Your task to perform on an android device: set default search engine in the chrome app Image 0: 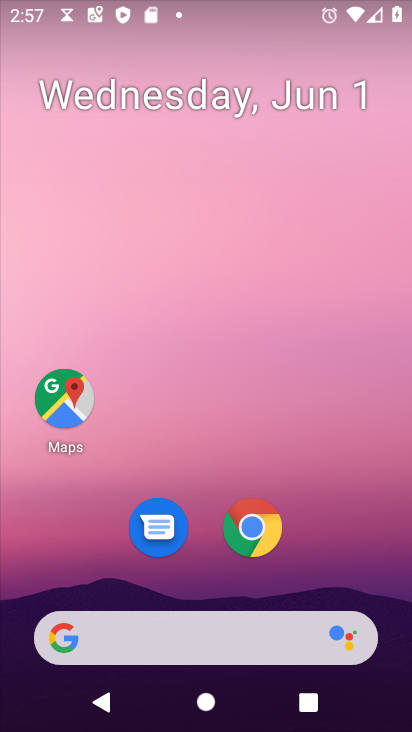
Step 0: click (252, 527)
Your task to perform on an android device: set default search engine in the chrome app Image 1: 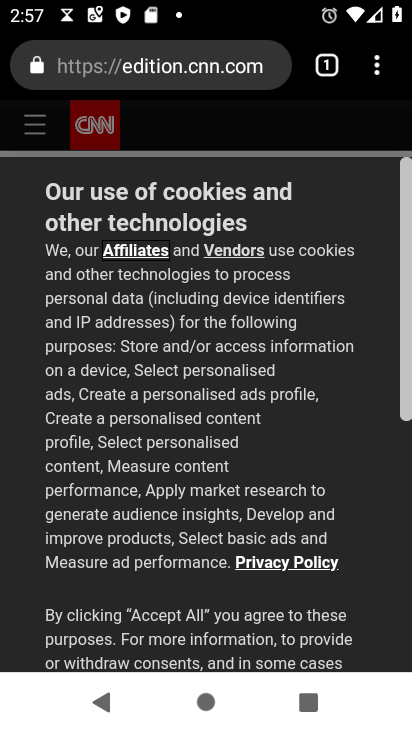
Step 1: click (379, 69)
Your task to perform on an android device: set default search engine in the chrome app Image 2: 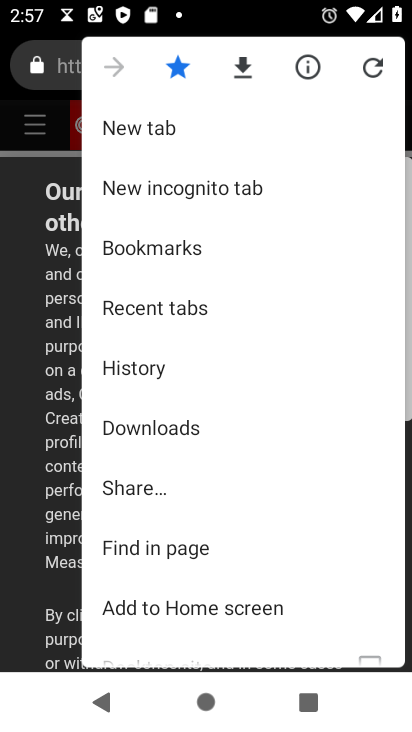
Step 2: drag from (172, 453) to (201, 383)
Your task to perform on an android device: set default search engine in the chrome app Image 3: 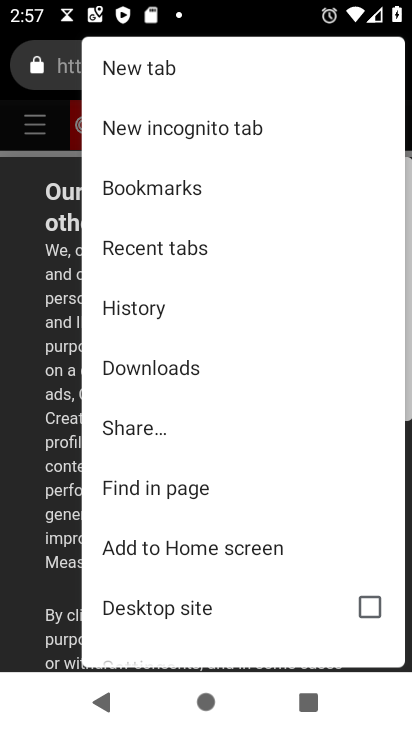
Step 3: drag from (166, 454) to (206, 387)
Your task to perform on an android device: set default search engine in the chrome app Image 4: 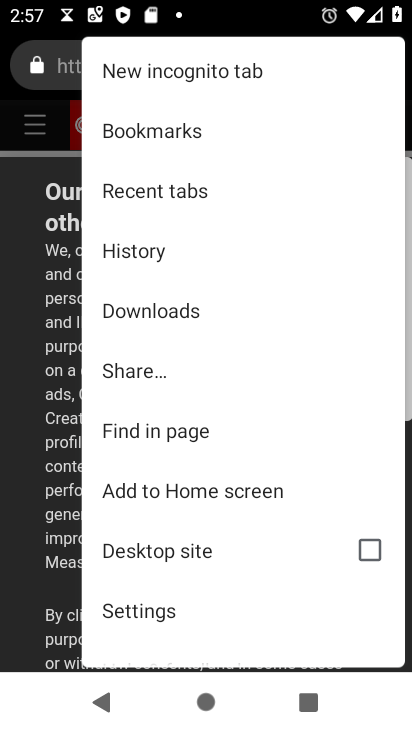
Step 4: drag from (160, 516) to (228, 426)
Your task to perform on an android device: set default search engine in the chrome app Image 5: 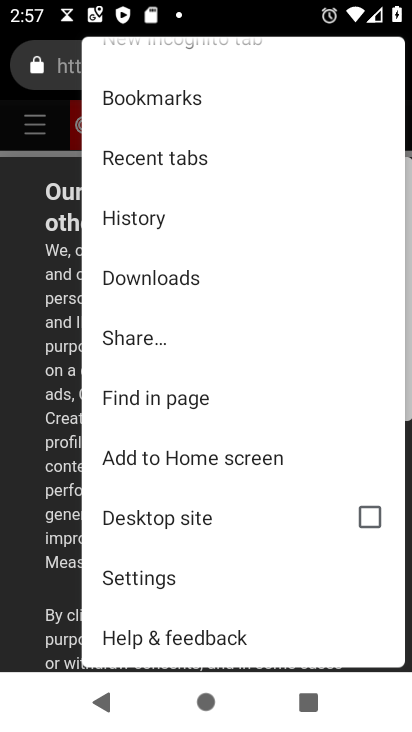
Step 5: click (158, 571)
Your task to perform on an android device: set default search engine in the chrome app Image 6: 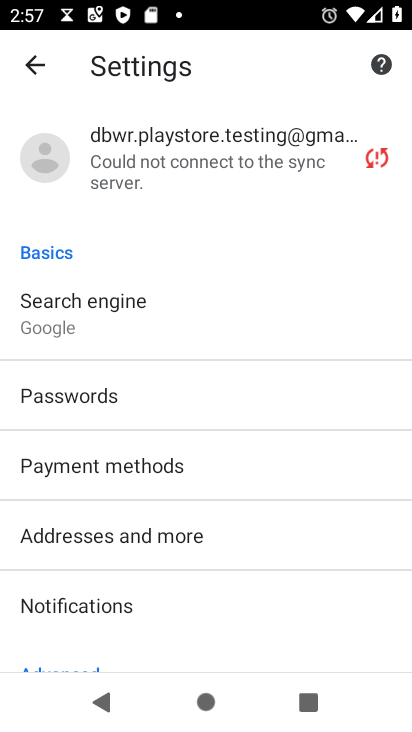
Step 6: click (122, 312)
Your task to perform on an android device: set default search engine in the chrome app Image 7: 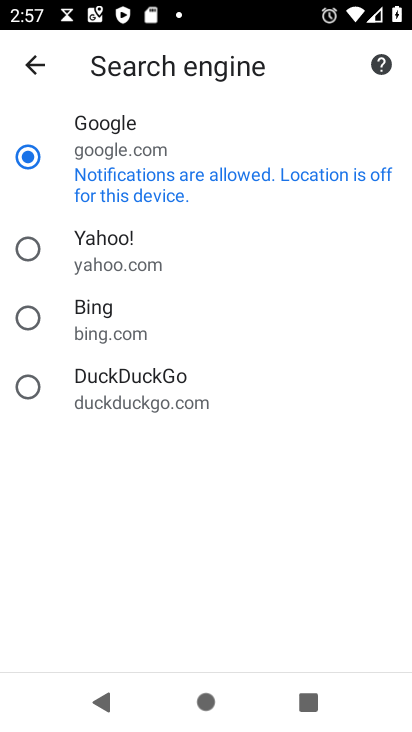
Step 7: click (32, 151)
Your task to perform on an android device: set default search engine in the chrome app Image 8: 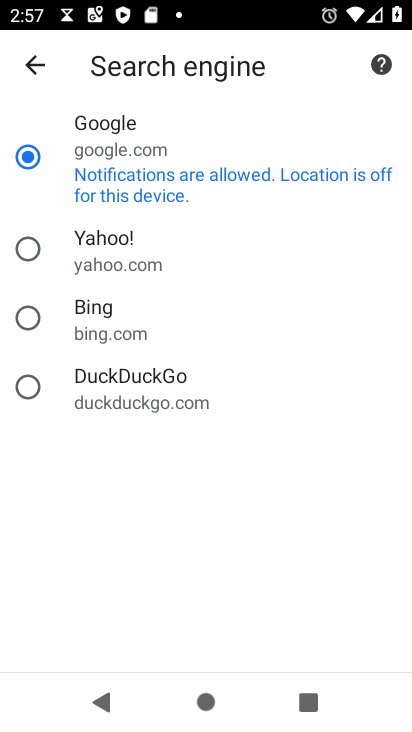
Step 8: task complete